Your task to perform on an android device: Search for the best selling video games at Target Image 0: 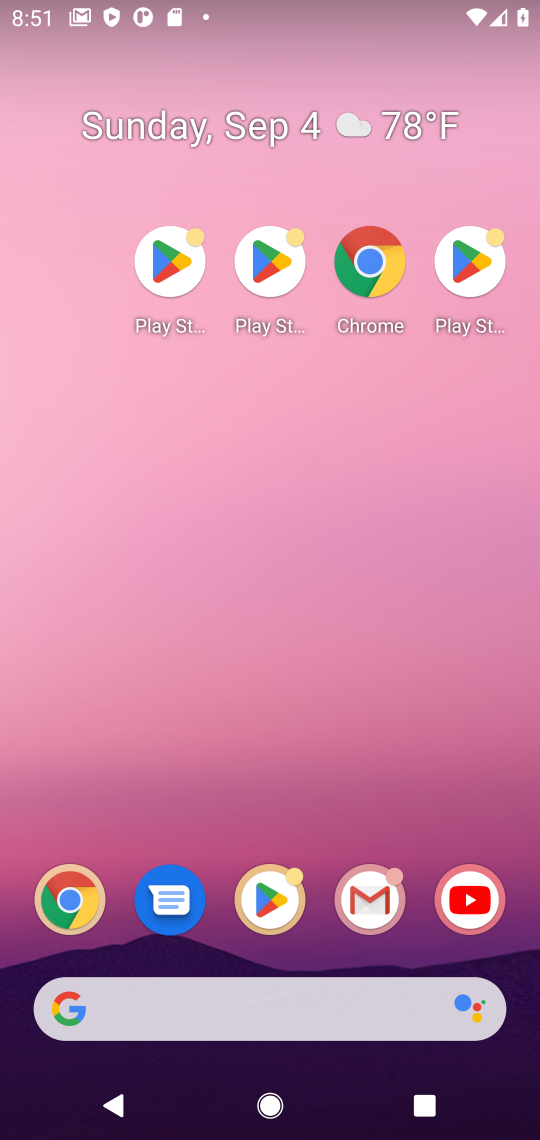
Step 0: click (400, 287)
Your task to perform on an android device: Search for the best selling video games at Target Image 1: 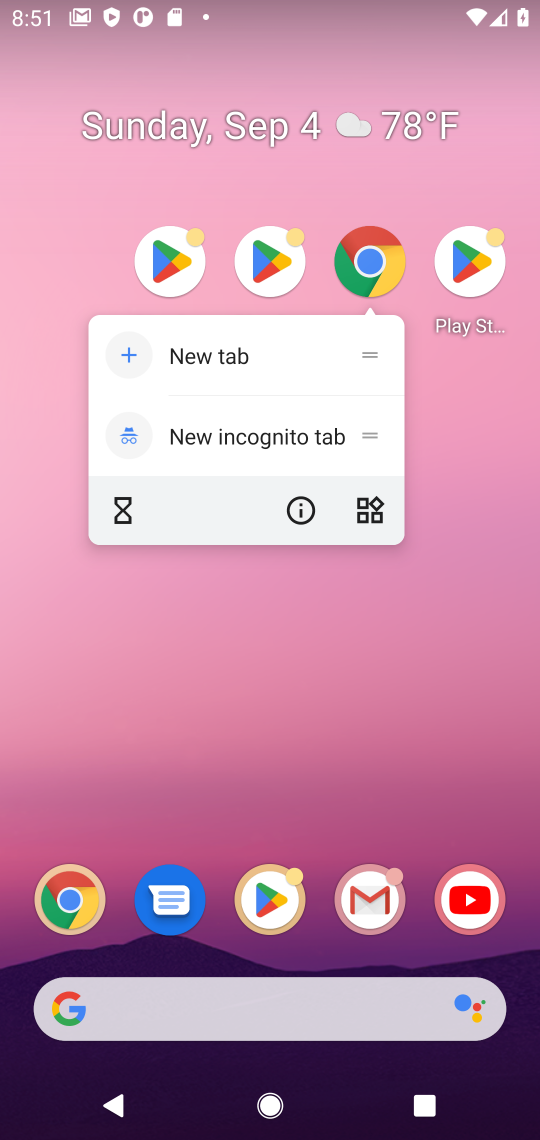
Step 1: click (380, 279)
Your task to perform on an android device: Search for the best selling video games at Target Image 2: 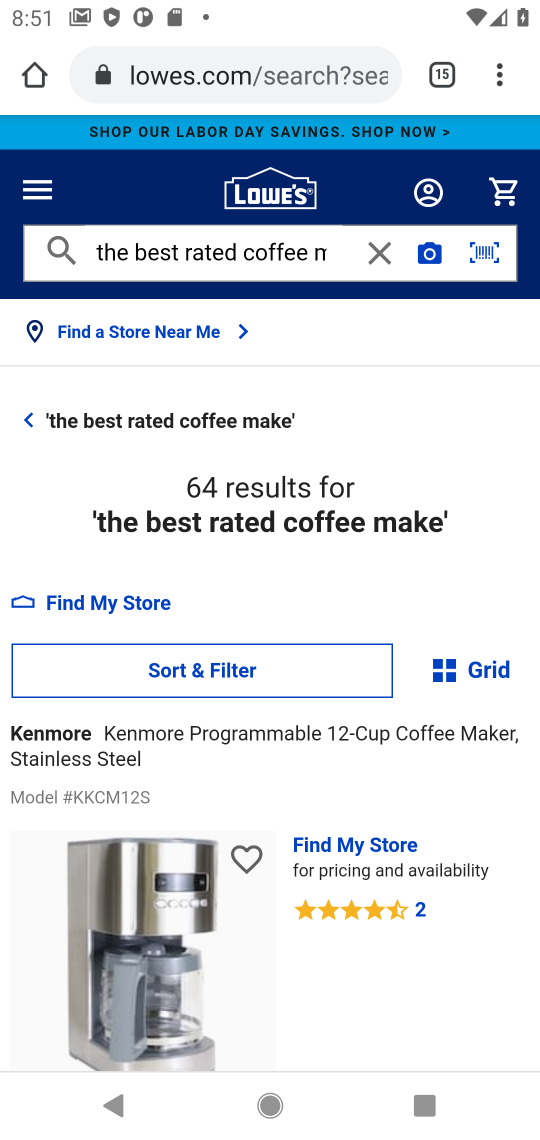
Step 2: click (439, 83)
Your task to perform on an android device: Search for the best selling video games at Target Image 3: 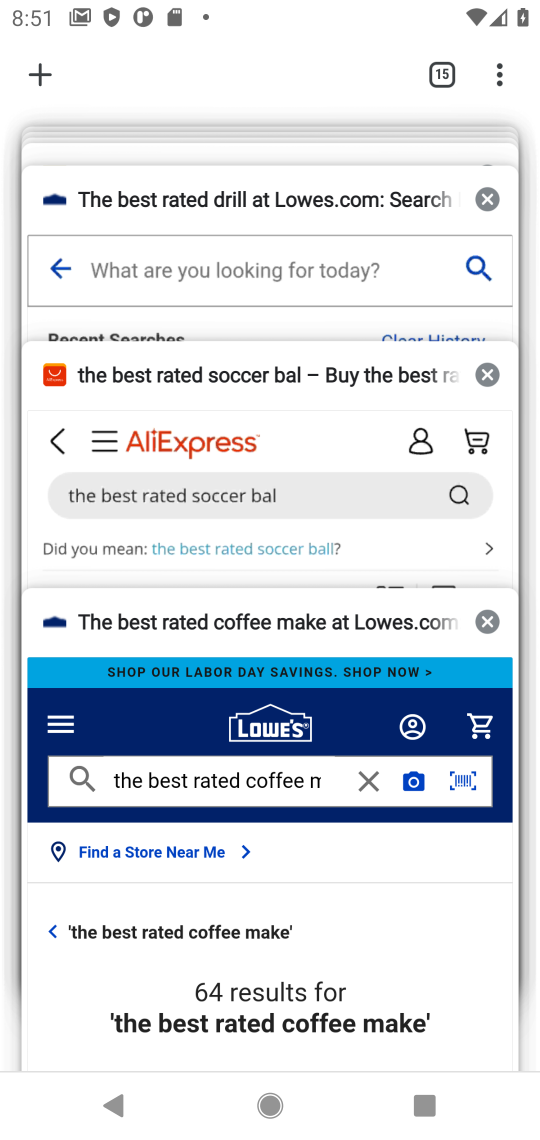
Step 3: click (486, 194)
Your task to perform on an android device: Search for the best selling video games at Target Image 4: 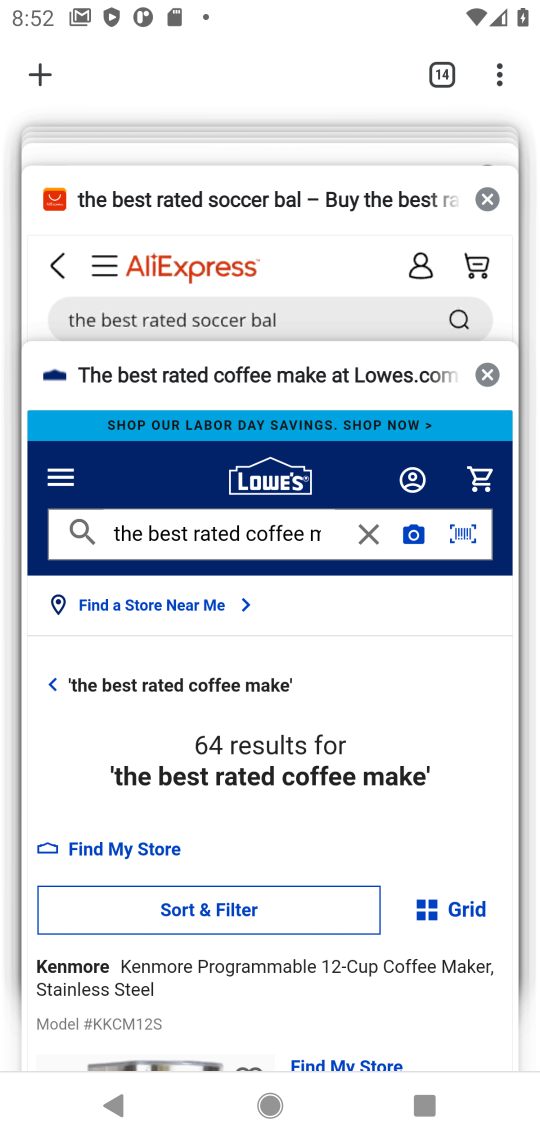
Step 4: click (486, 194)
Your task to perform on an android device: Search for the best selling video games at Target Image 5: 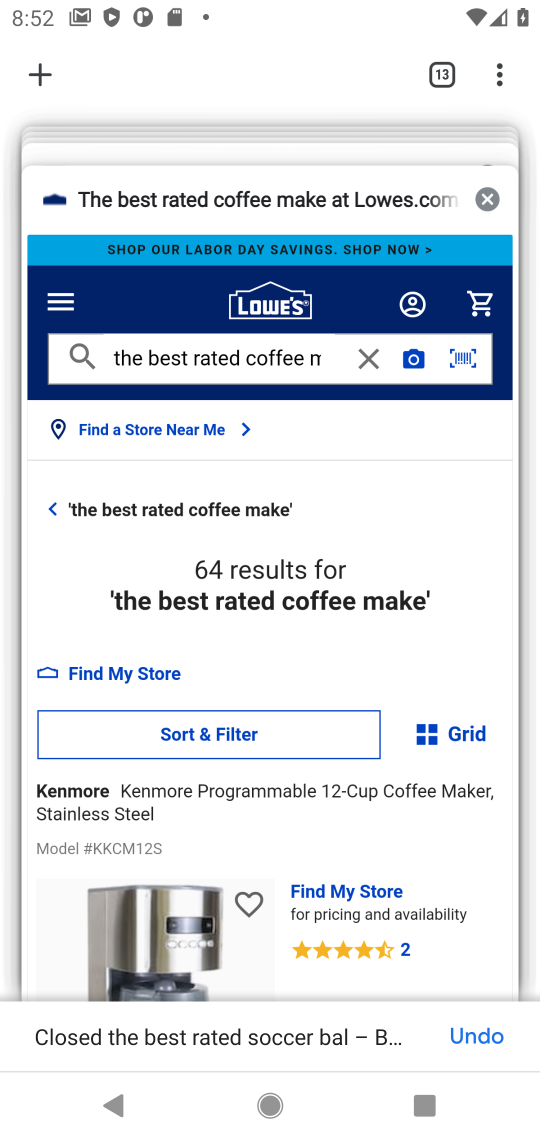
Step 5: click (486, 194)
Your task to perform on an android device: Search for the best selling video games at Target Image 6: 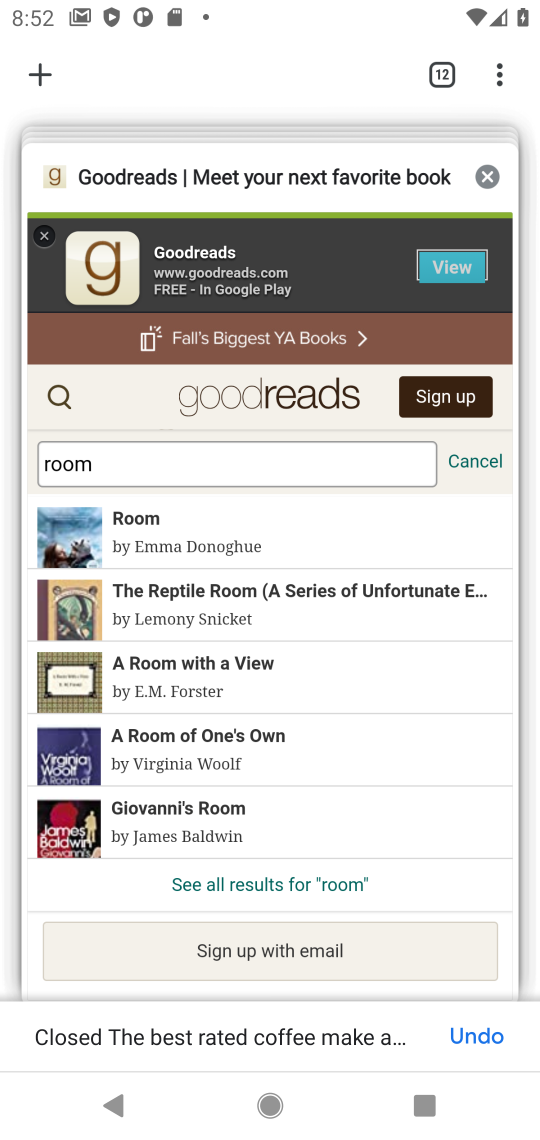
Step 6: click (486, 179)
Your task to perform on an android device: Search for the best selling video games at Target Image 7: 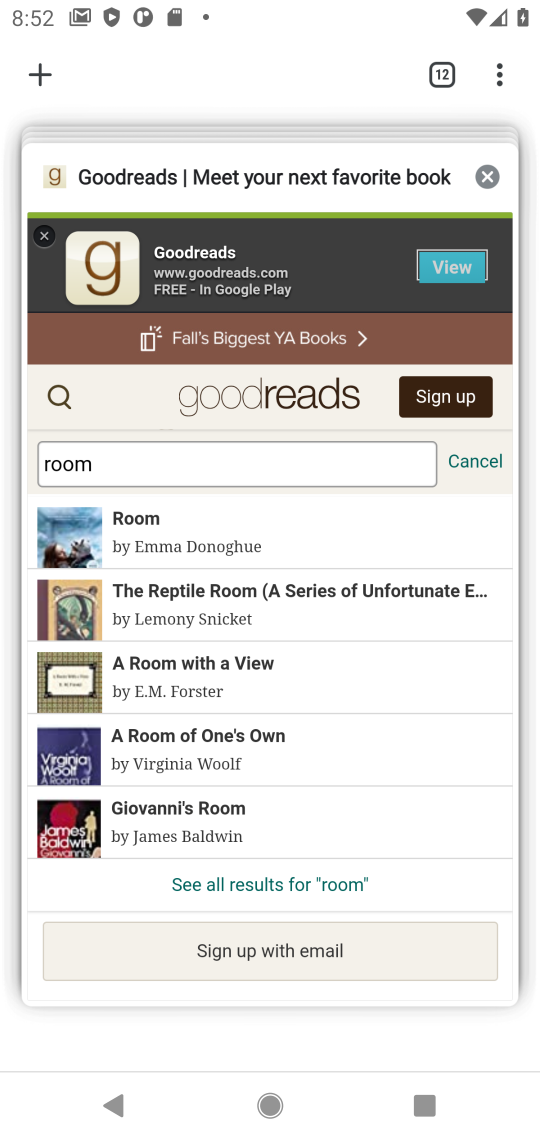
Step 7: click (486, 179)
Your task to perform on an android device: Search for the best selling video games at Target Image 8: 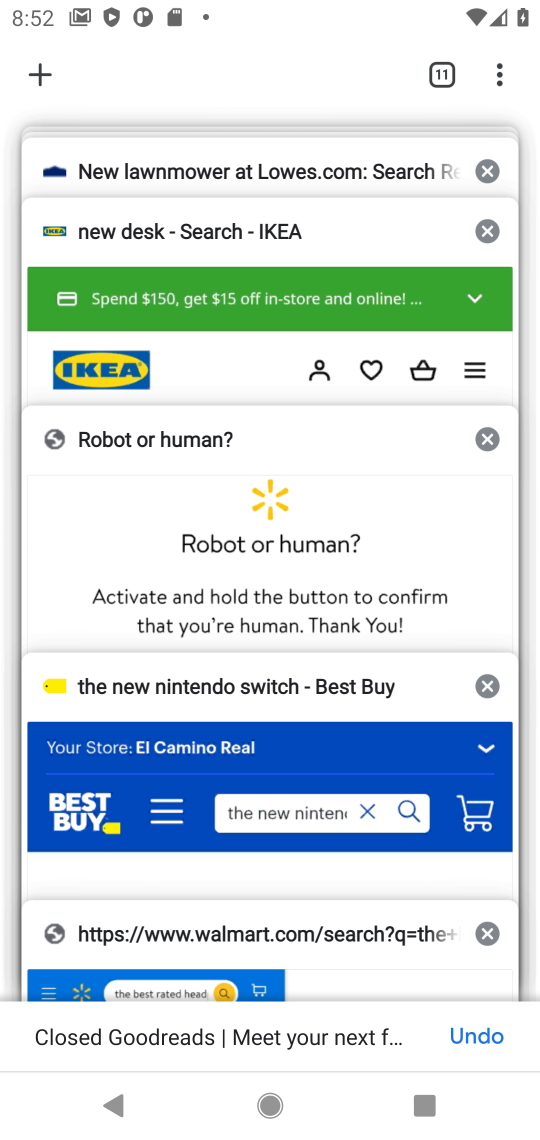
Step 8: click (486, 179)
Your task to perform on an android device: Search for the best selling video games at Target Image 9: 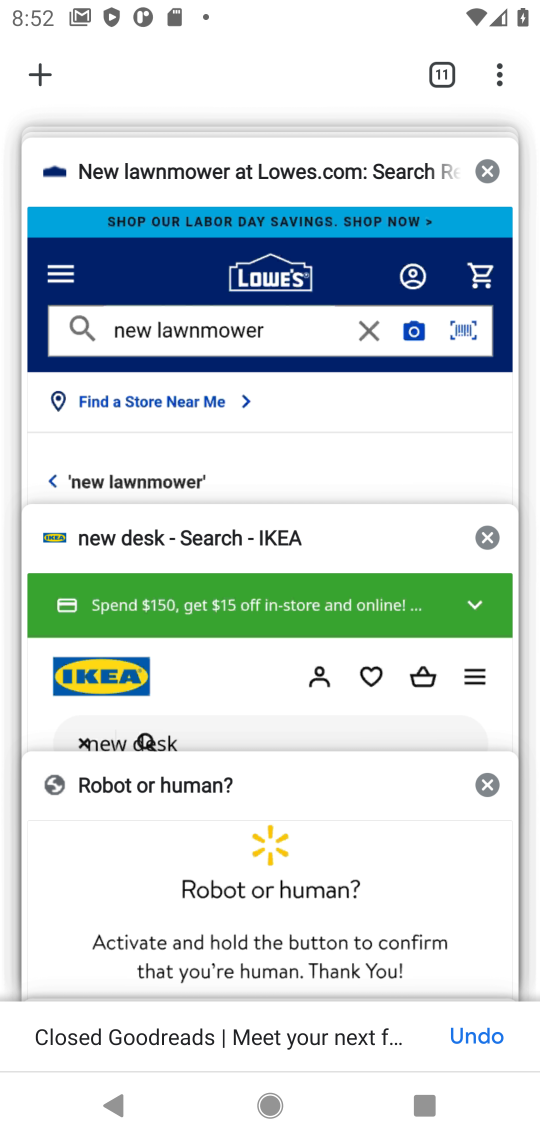
Step 9: click (486, 179)
Your task to perform on an android device: Search for the best selling video games at Target Image 10: 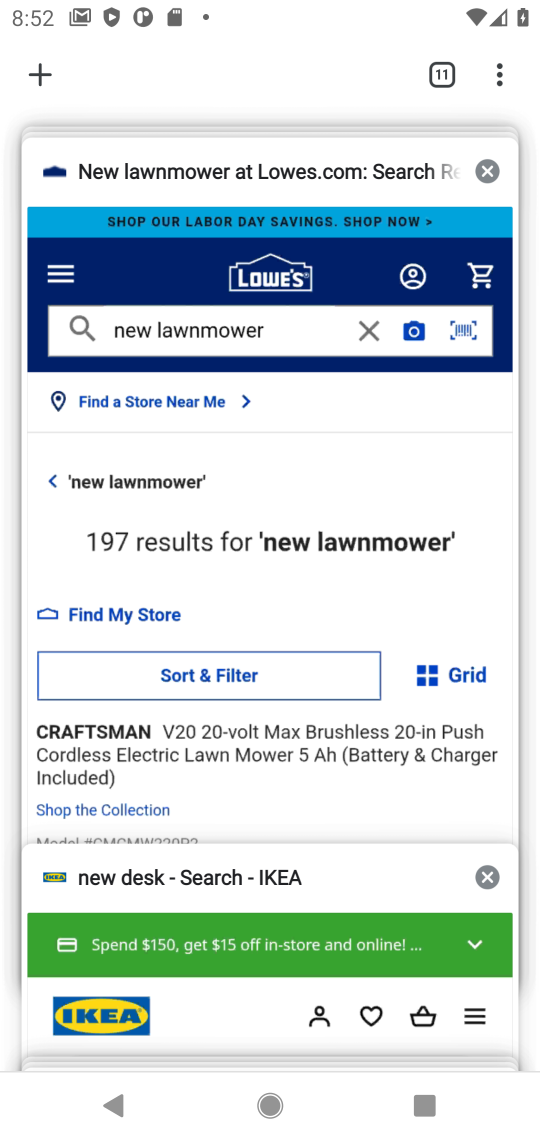
Step 10: click (486, 179)
Your task to perform on an android device: Search for the best selling video games at Target Image 11: 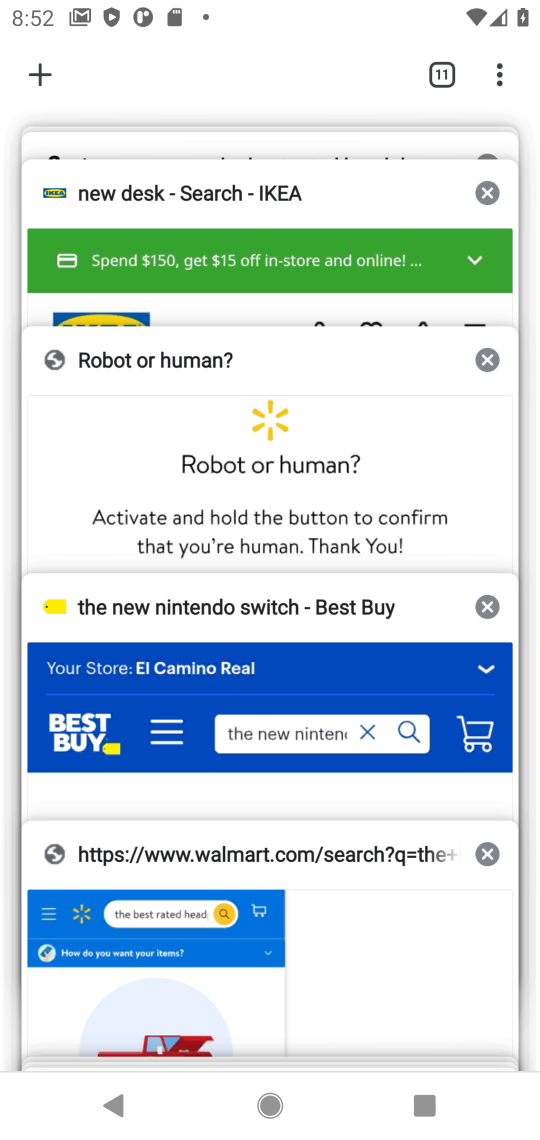
Step 11: click (486, 179)
Your task to perform on an android device: Search for the best selling video games at Target Image 12: 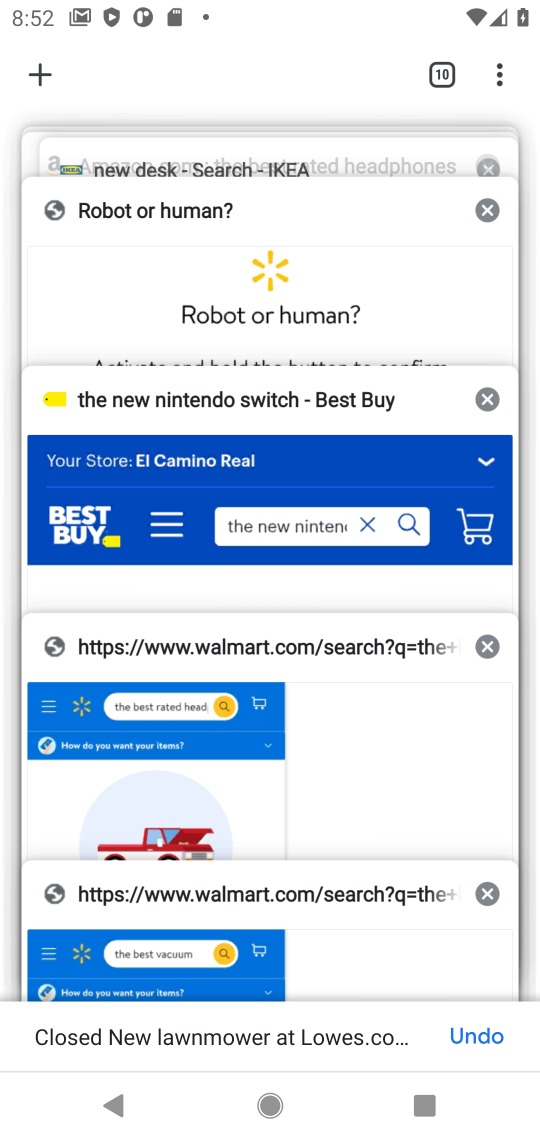
Step 12: click (486, 179)
Your task to perform on an android device: Search for the best selling video games at Target Image 13: 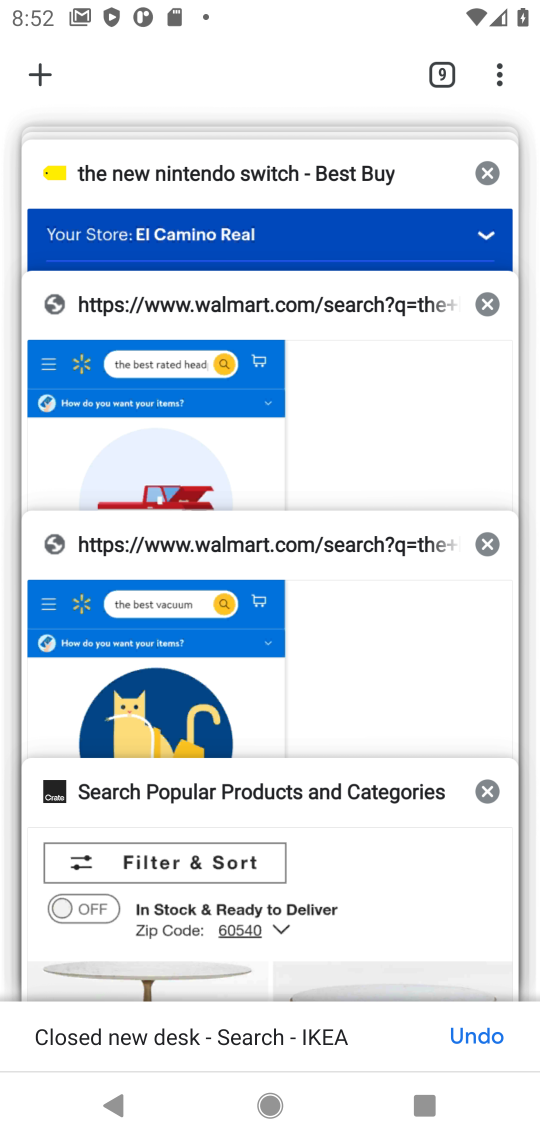
Step 13: click (486, 179)
Your task to perform on an android device: Search for the best selling video games at Target Image 14: 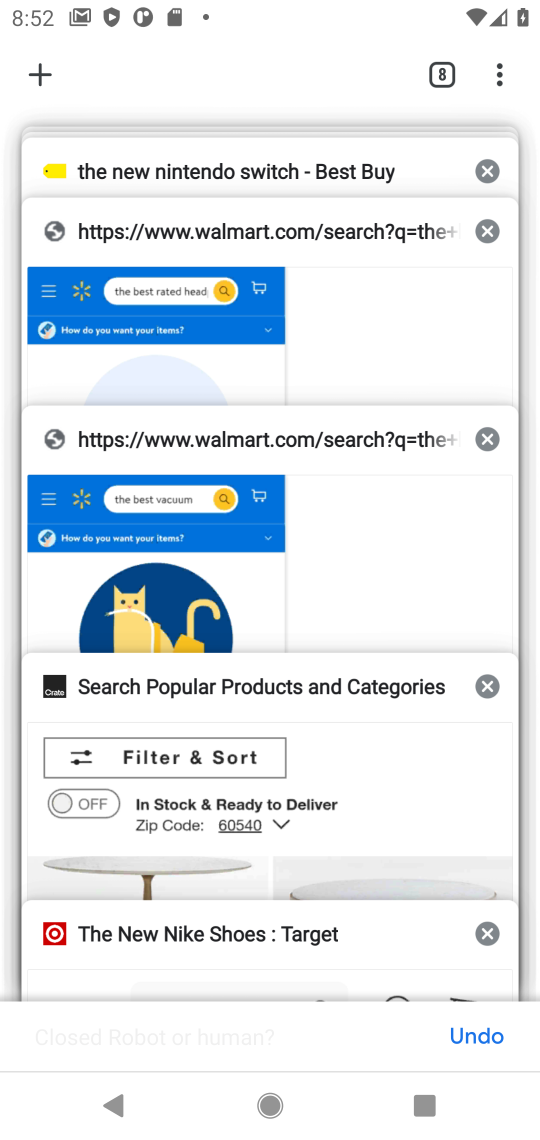
Step 14: click (486, 179)
Your task to perform on an android device: Search for the best selling video games at Target Image 15: 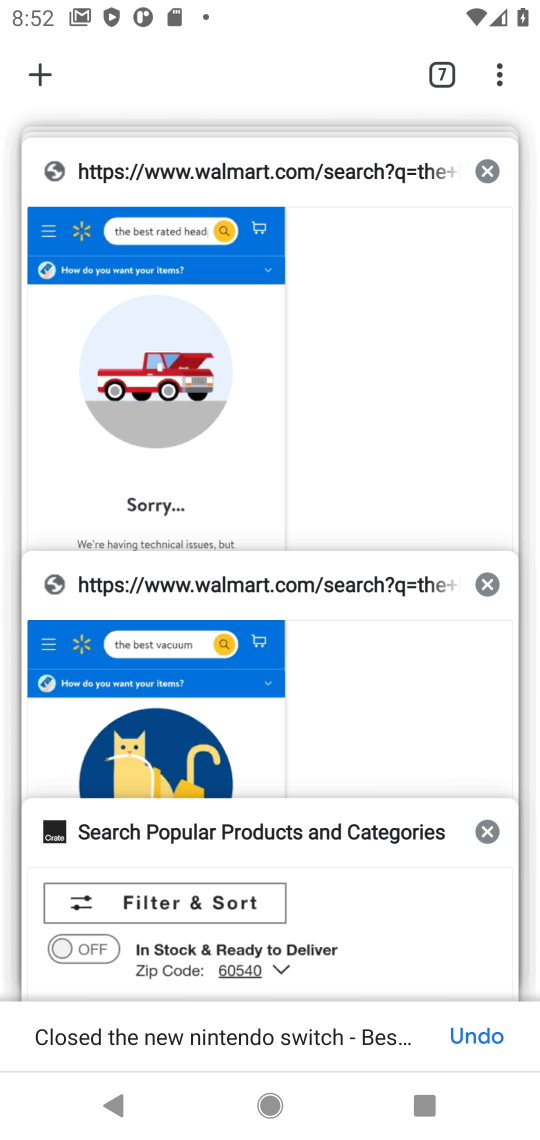
Step 15: click (486, 179)
Your task to perform on an android device: Search for the best selling video games at Target Image 16: 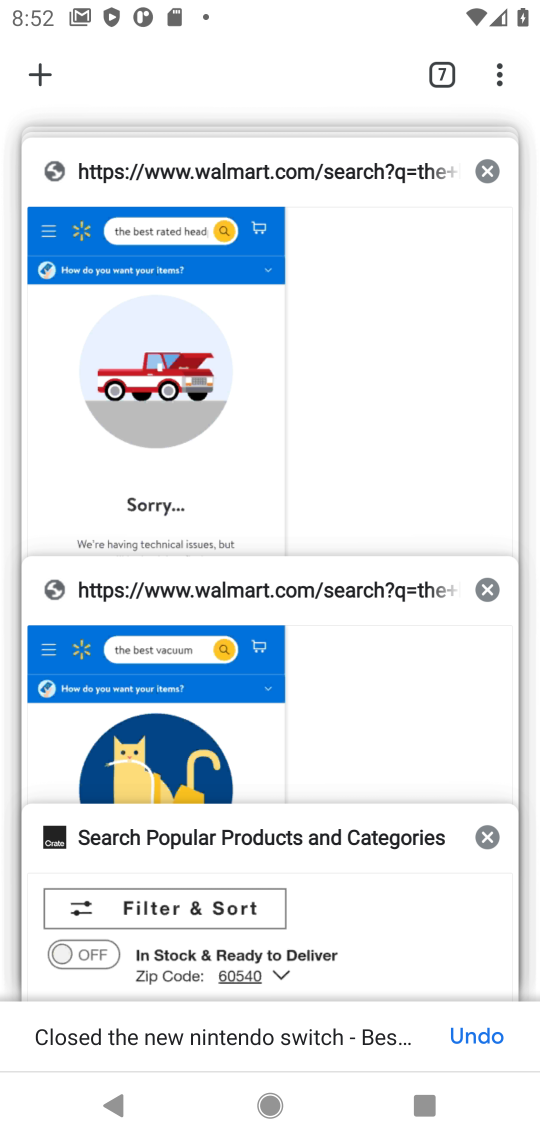
Step 16: click (486, 179)
Your task to perform on an android device: Search for the best selling video games at Target Image 17: 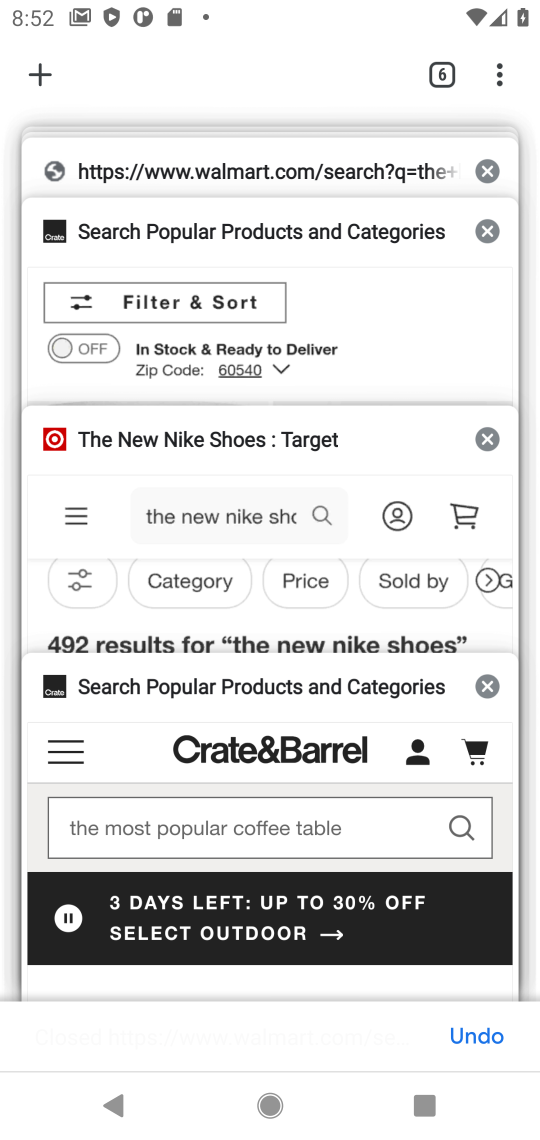
Step 17: click (486, 179)
Your task to perform on an android device: Search for the best selling video games at Target Image 18: 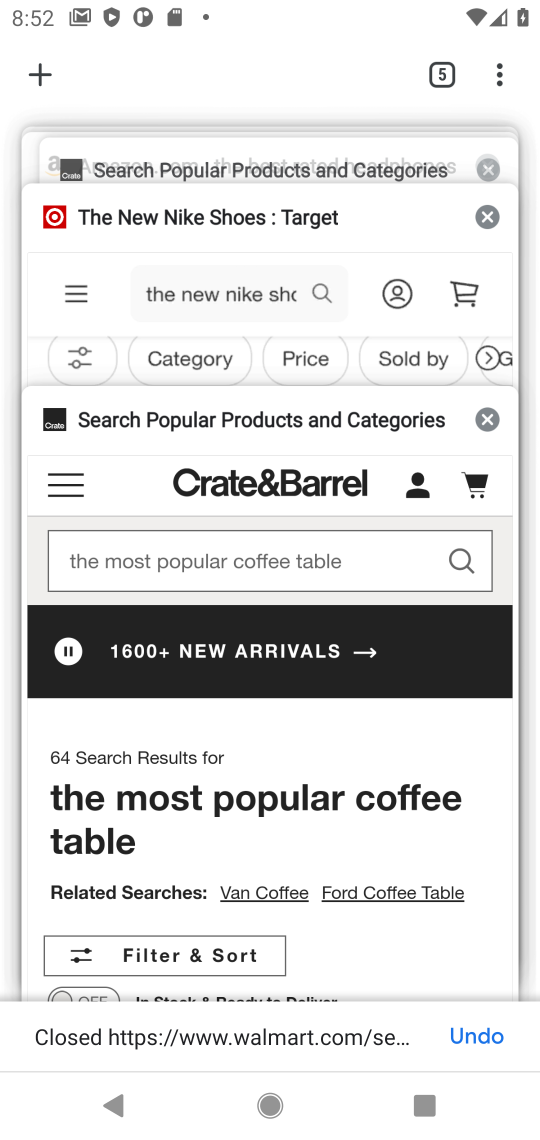
Step 18: click (486, 179)
Your task to perform on an android device: Search for the best selling video games at Target Image 19: 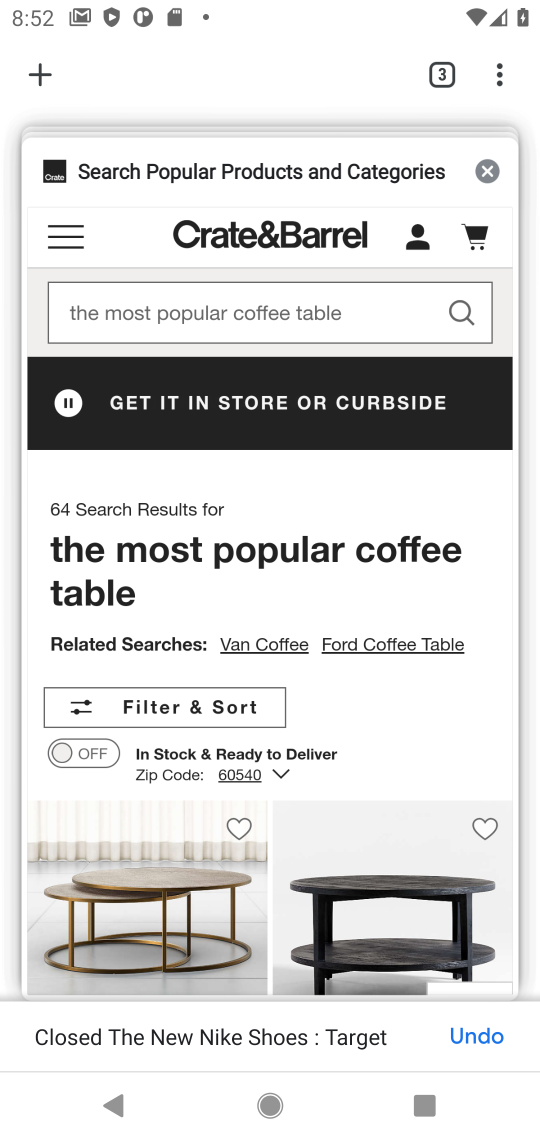
Step 19: click (486, 179)
Your task to perform on an android device: Search for the best selling video games at Target Image 20: 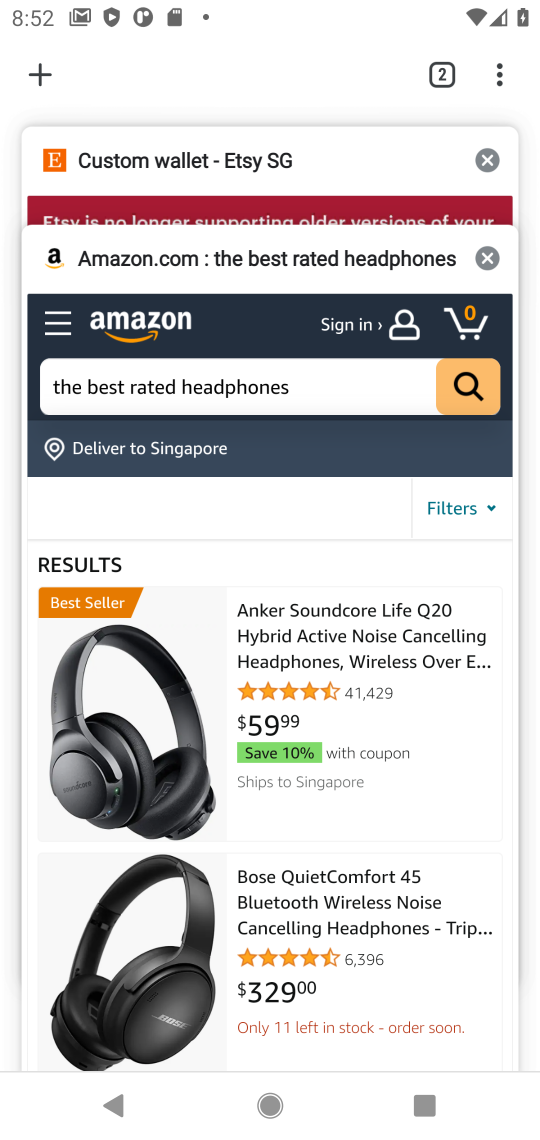
Step 20: click (484, 168)
Your task to perform on an android device: Search for the best selling video games at Target Image 21: 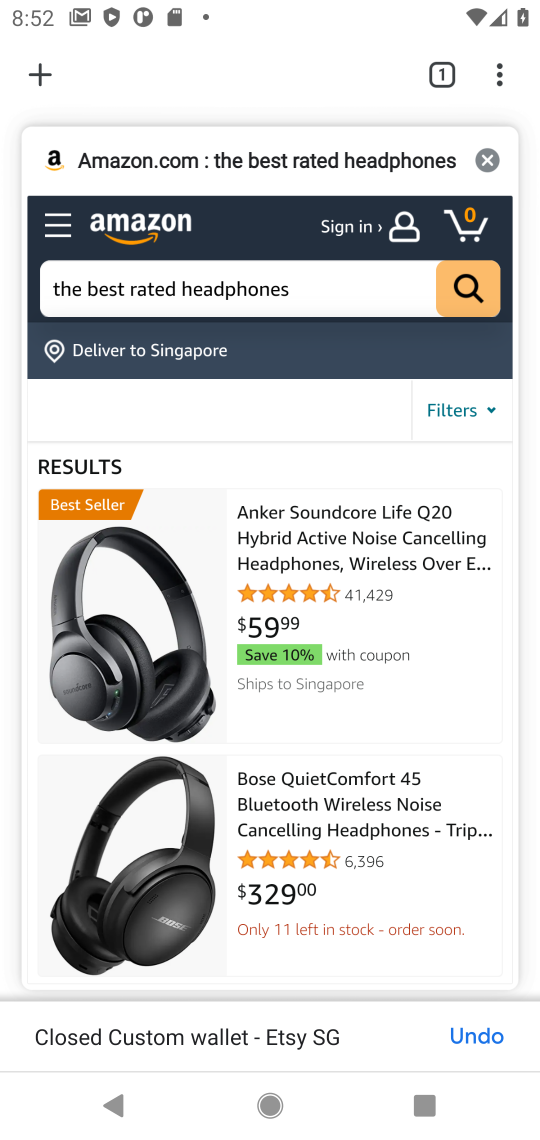
Step 21: click (484, 168)
Your task to perform on an android device: Search for the best selling video games at Target Image 22: 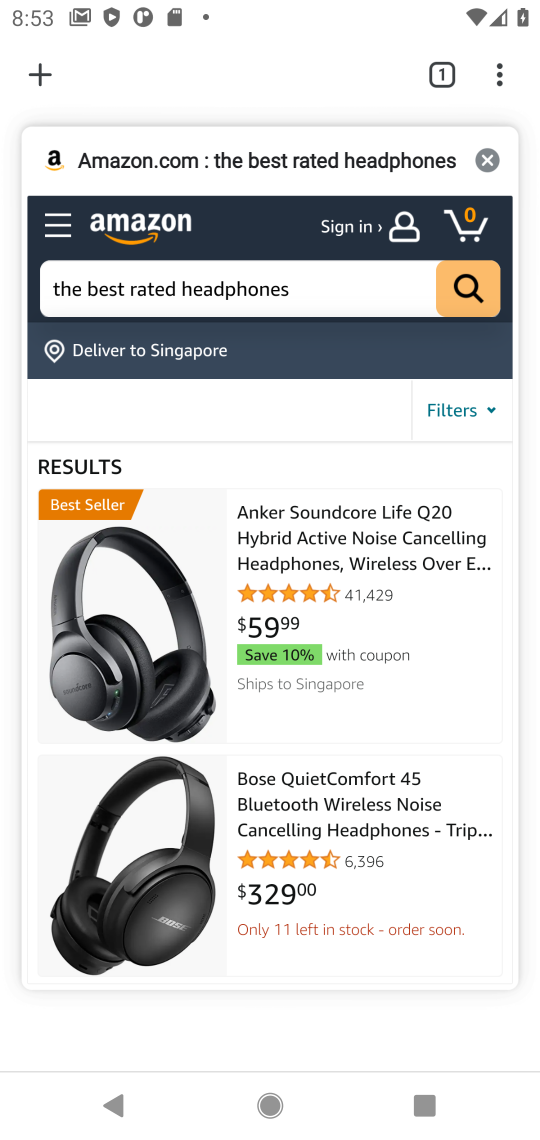
Step 22: click (46, 71)
Your task to perform on an android device: Search for the best selling video games at Target Image 23: 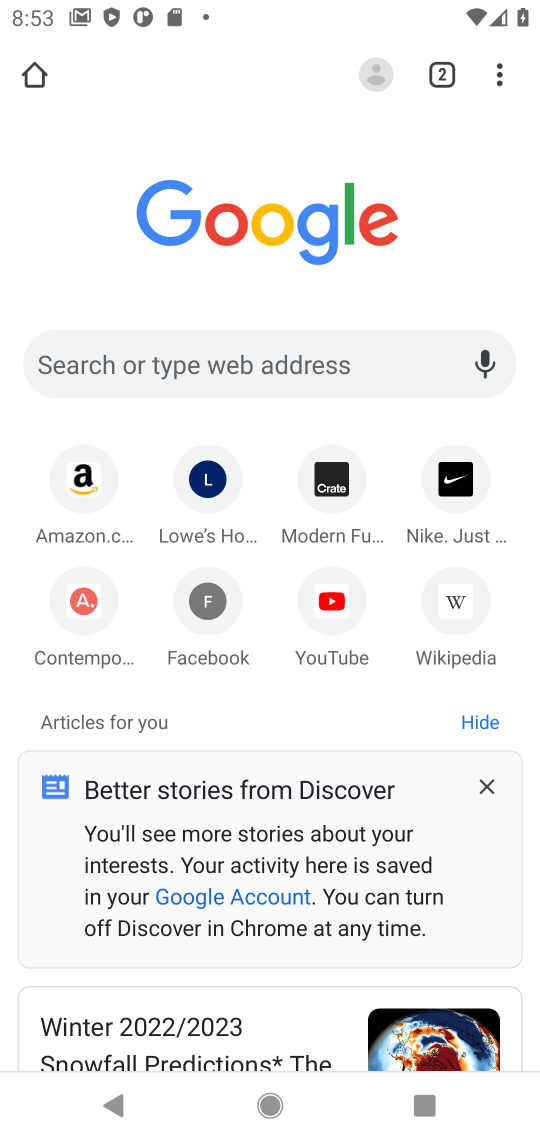
Step 23: click (263, 346)
Your task to perform on an android device: Search for the best selling video games at Target Image 24: 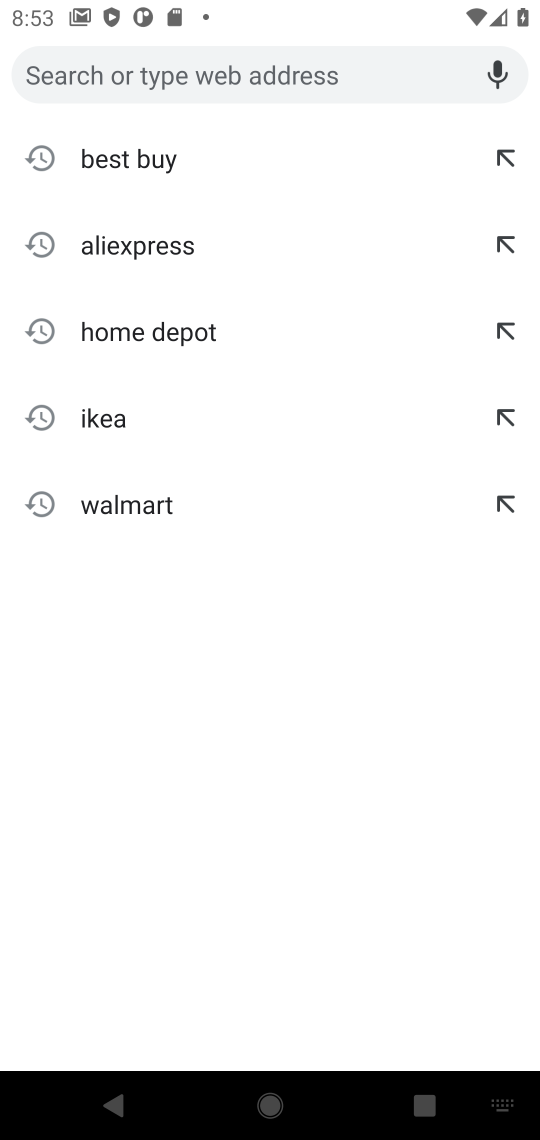
Step 24: click (539, 1118)
Your task to perform on an android device: Search for the best selling video games at Target Image 25: 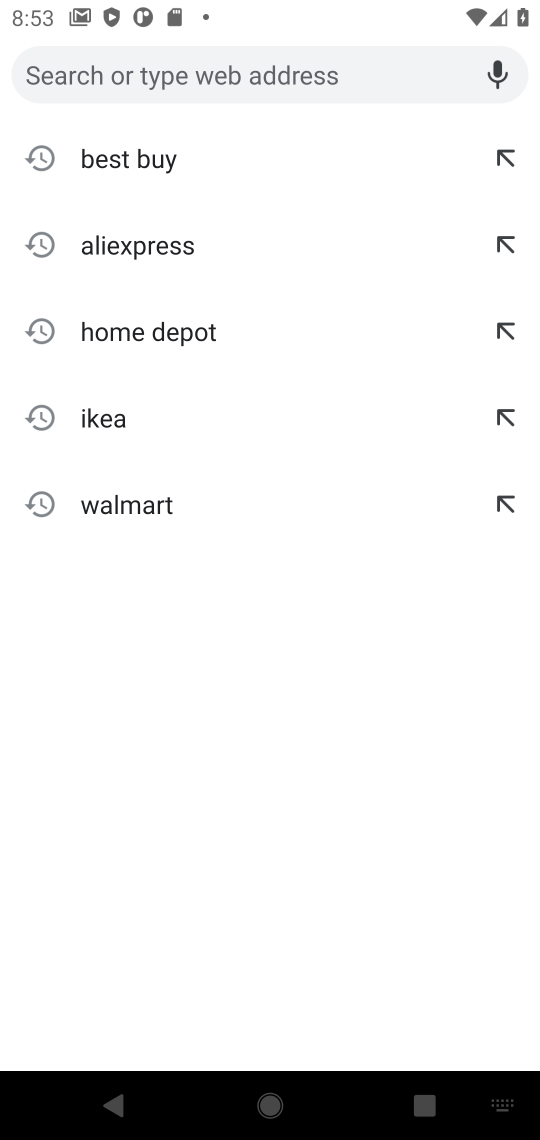
Step 25: type "Target"
Your task to perform on an android device: Search for the best selling video games at Target Image 26: 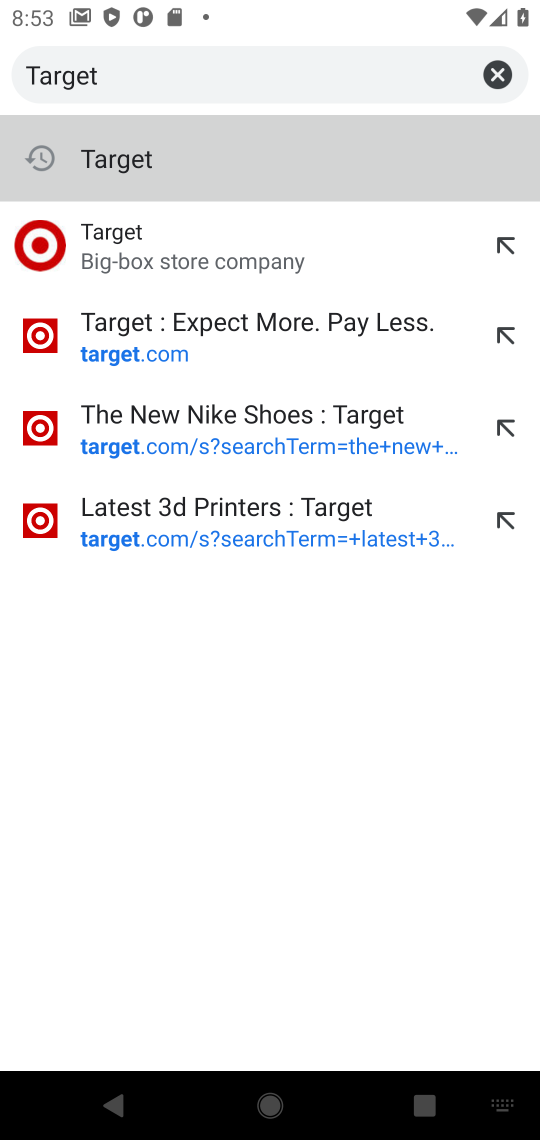
Step 26: drag from (504, 1139) to (499, 258)
Your task to perform on an android device: Search for the best selling video games at Target Image 27: 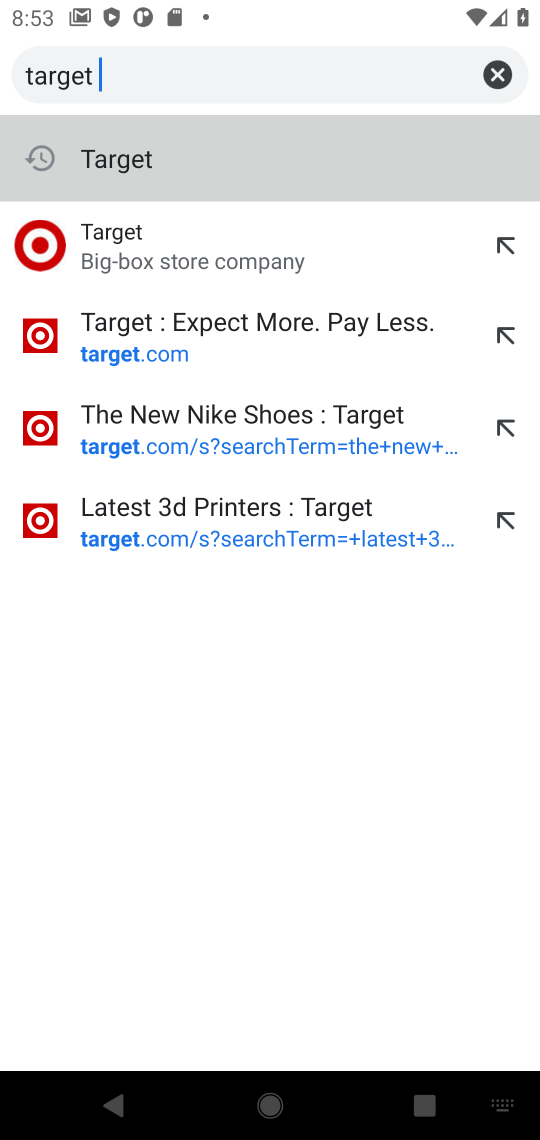
Step 27: click (274, 180)
Your task to perform on an android device: Search for the best selling video games at Target Image 28: 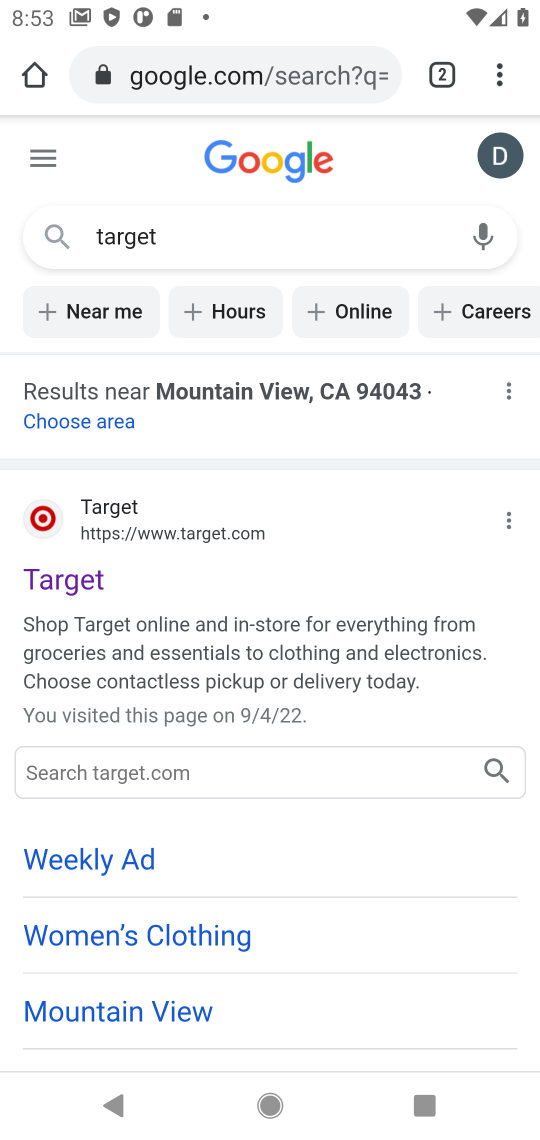
Step 28: click (98, 578)
Your task to perform on an android device: Search for the best selling video games at Target Image 29: 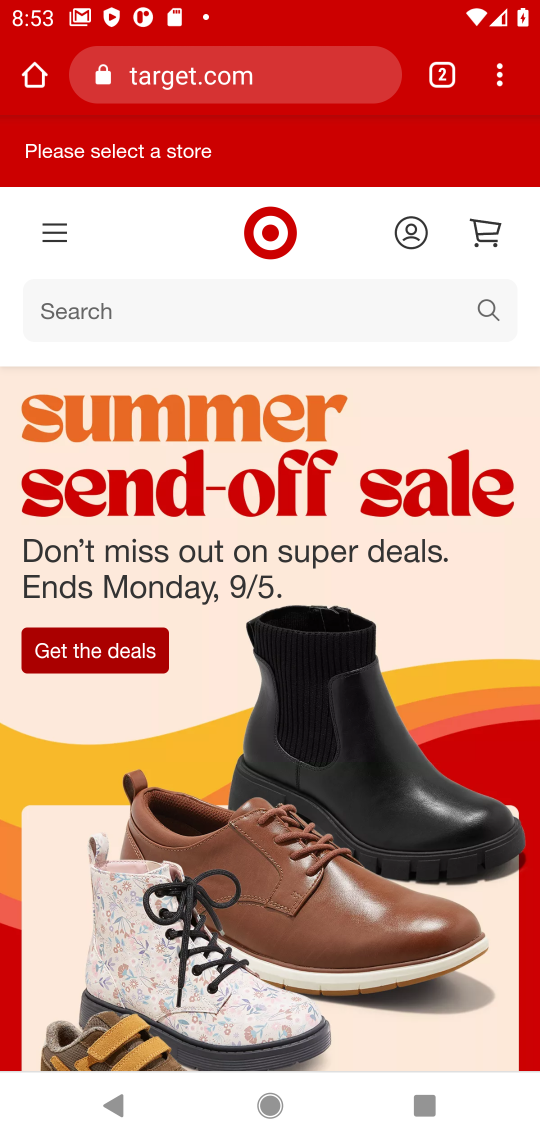
Step 29: click (106, 322)
Your task to perform on an android device: Search for the best selling video games at Target Image 30: 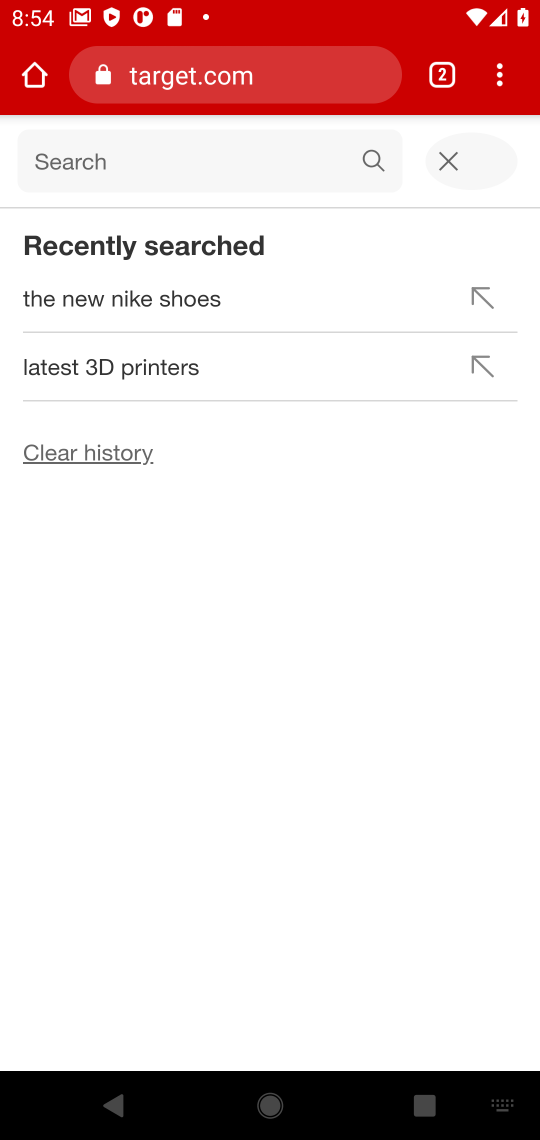
Step 30: type "the best selling video games "
Your task to perform on an android device: Search for the best selling video games at Target Image 31: 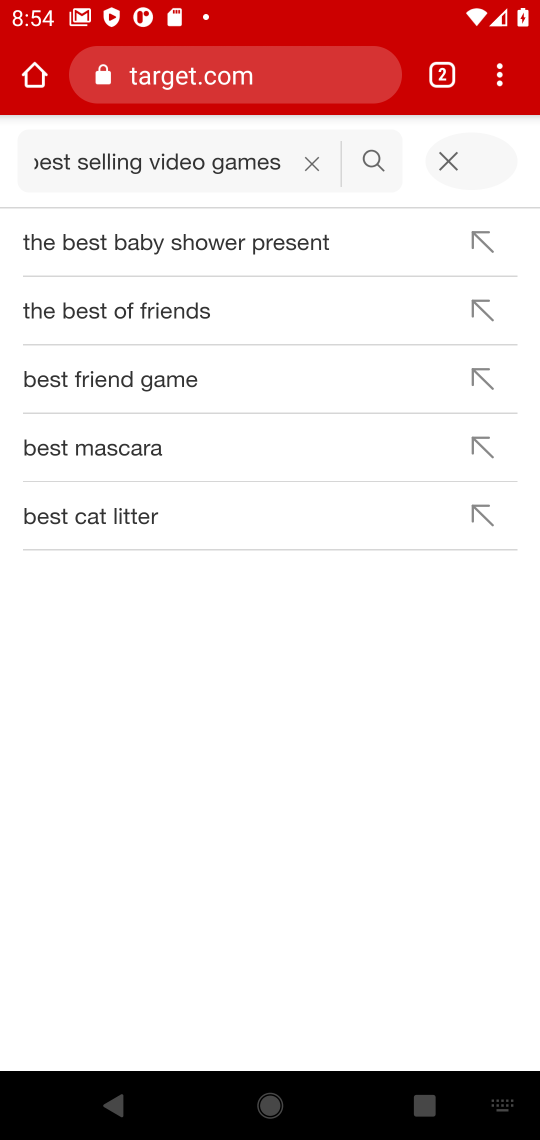
Step 31: click (366, 163)
Your task to perform on an android device: Search for the best selling video games at Target Image 32: 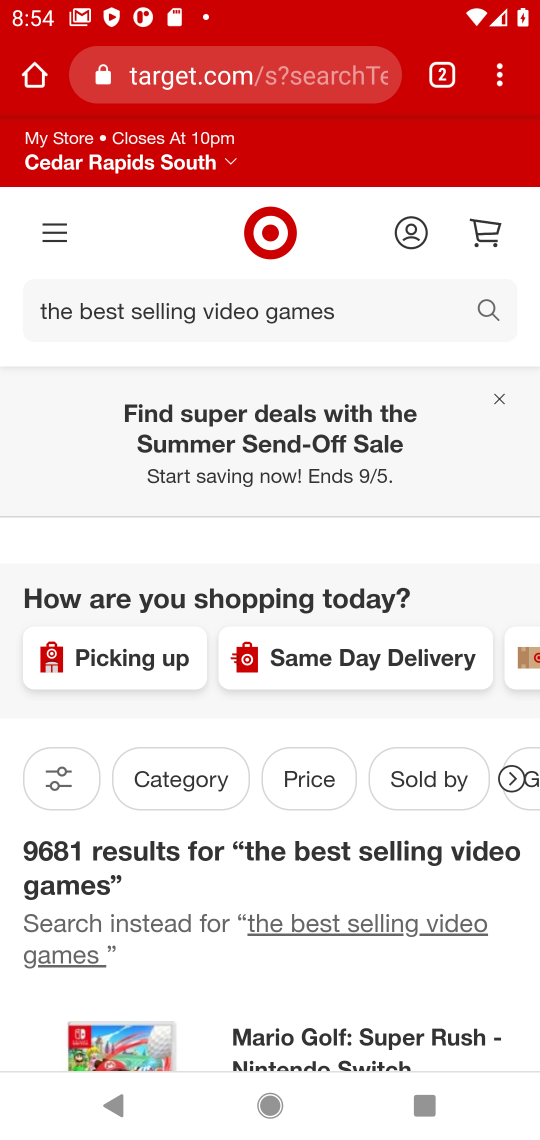
Step 32: task complete